Your task to perform on an android device: Show me popular games on the Play Store Image 0: 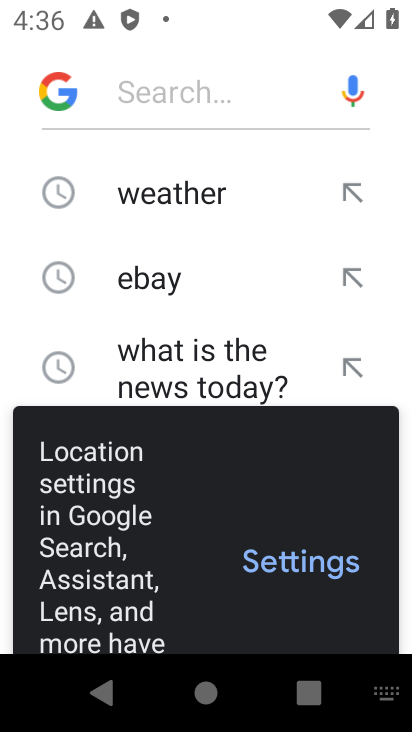
Step 0: press home button
Your task to perform on an android device: Show me popular games on the Play Store Image 1: 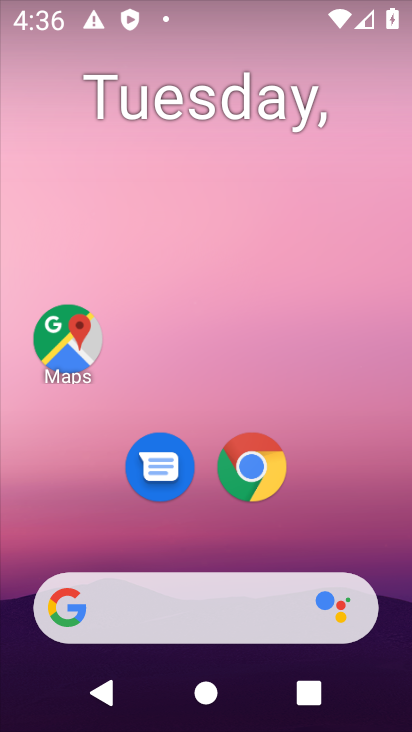
Step 1: drag from (294, 428) to (273, 124)
Your task to perform on an android device: Show me popular games on the Play Store Image 2: 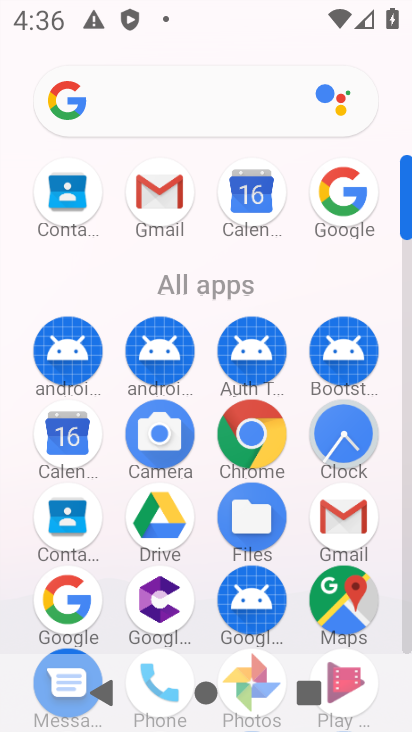
Step 2: drag from (393, 588) to (309, 235)
Your task to perform on an android device: Show me popular games on the Play Store Image 3: 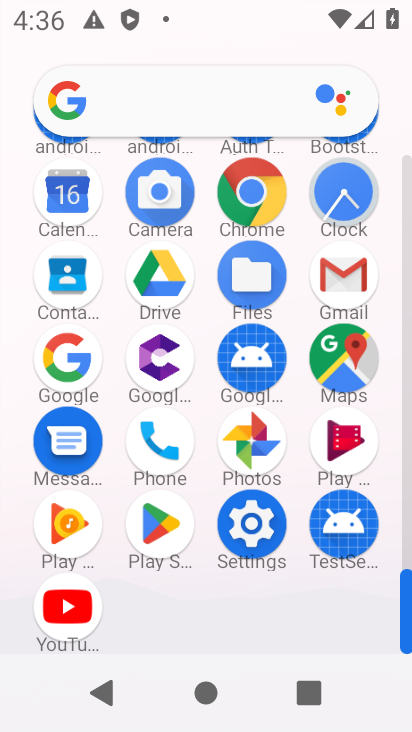
Step 3: click (164, 508)
Your task to perform on an android device: Show me popular games on the Play Store Image 4: 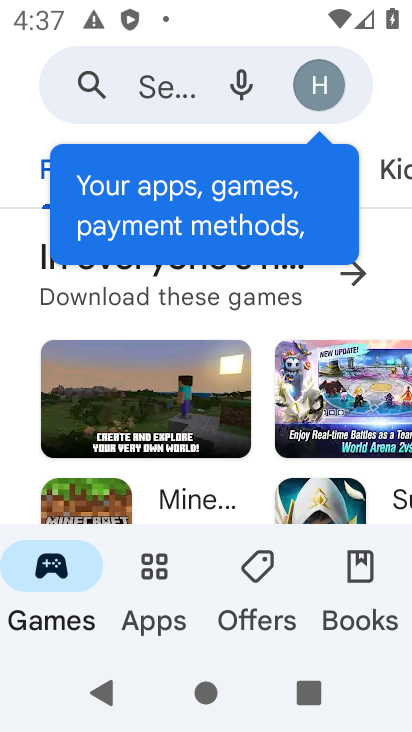
Step 4: click (154, 92)
Your task to perform on an android device: Show me popular games on the Play Store Image 5: 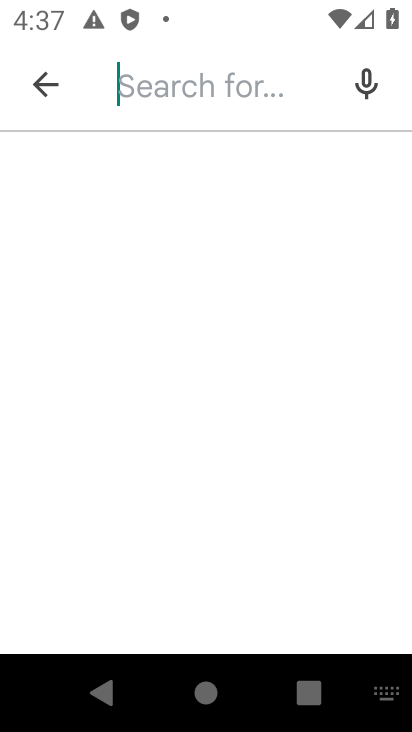
Step 5: type "popular games"
Your task to perform on an android device: Show me popular games on the Play Store Image 6: 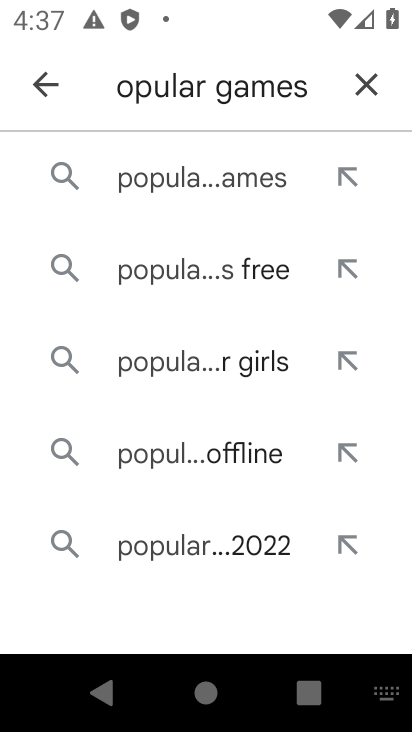
Step 6: click (196, 183)
Your task to perform on an android device: Show me popular games on the Play Store Image 7: 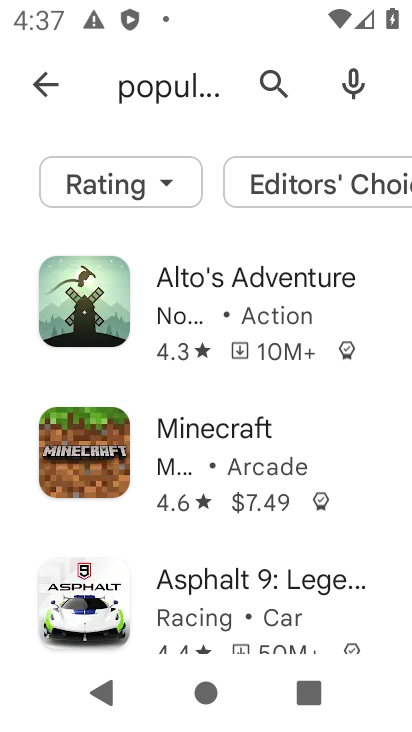
Step 7: task complete